Your task to perform on an android device: change the clock style Image 0: 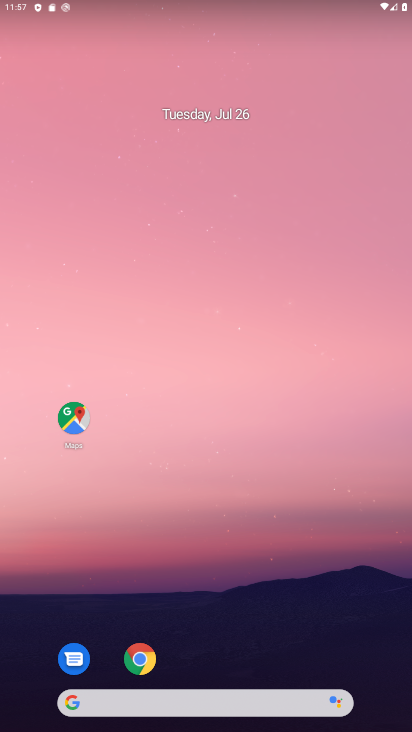
Step 0: drag from (297, 583) to (345, 16)
Your task to perform on an android device: change the clock style Image 1: 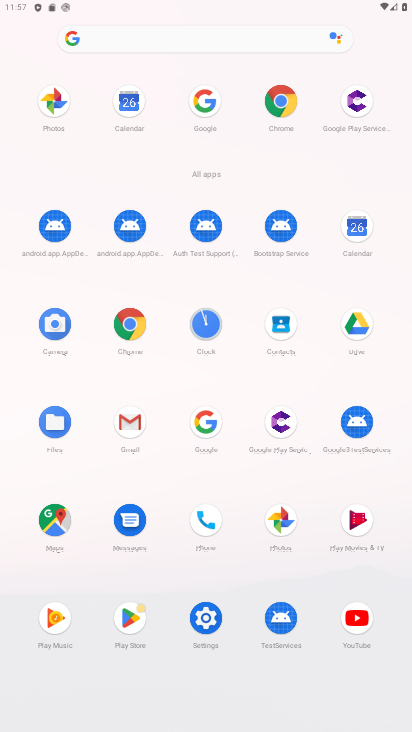
Step 1: click (204, 331)
Your task to perform on an android device: change the clock style Image 2: 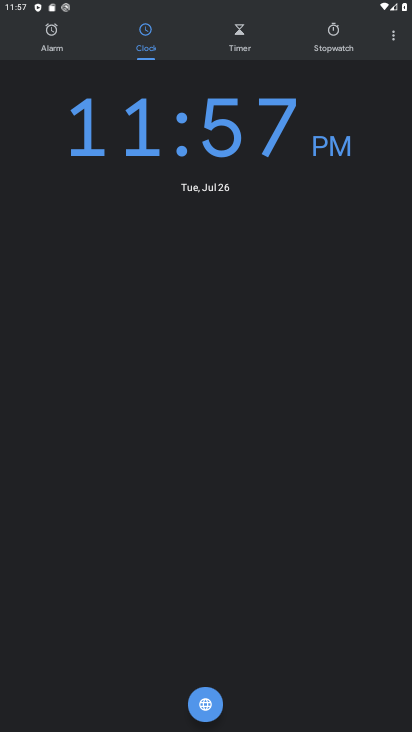
Step 2: click (391, 44)
Your task to perform on an android device: change the clock style Image 3: 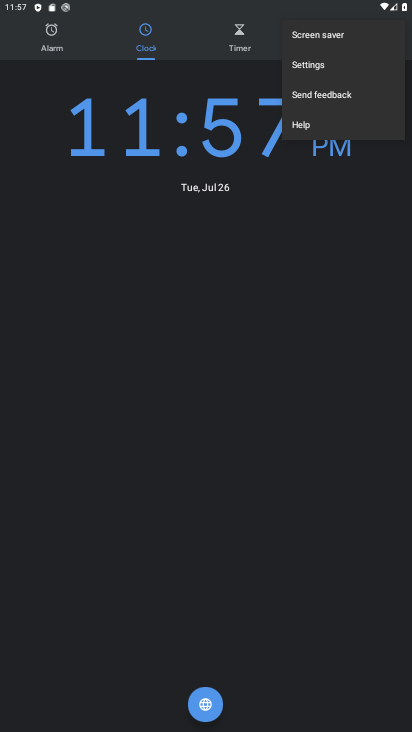
Step 3: click (313, 68)
Your task to perform on an android device: change the clock style Image 4: 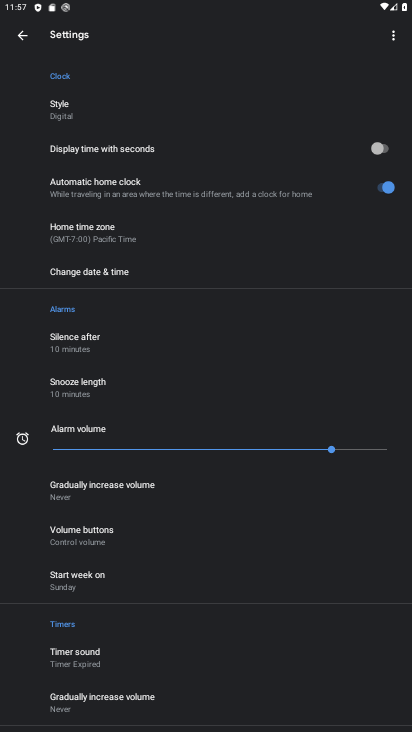
Step 4: click (59, 107)
Your task to perform on an android device: change the clock style Image 5: 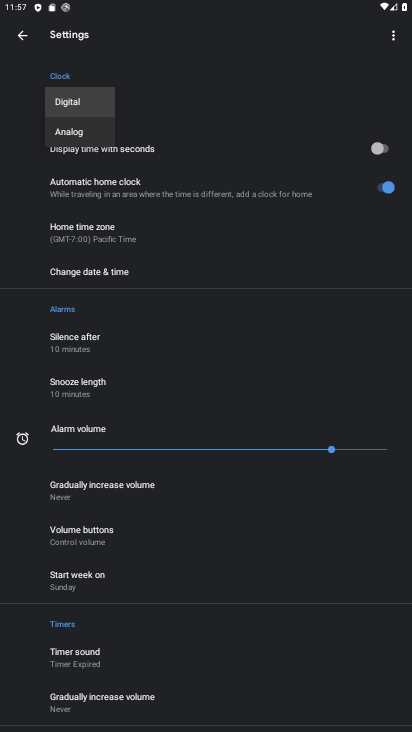
Step 5: click (86, 133)
Your task to perform on an android device: change the clock style Image 6: 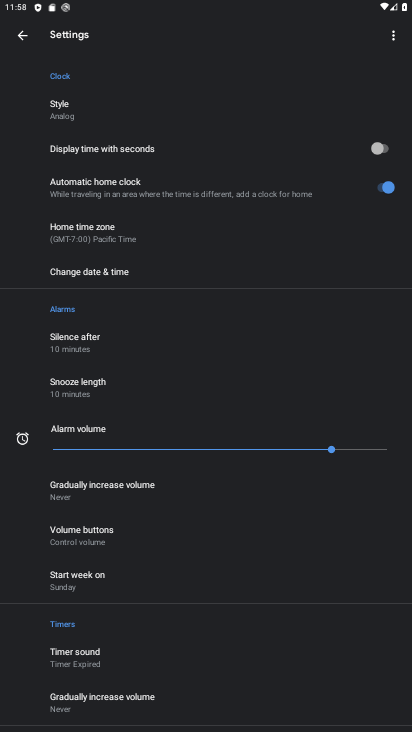
Step 6: task complete